Your task to perform on an android device: toggle improve location accuracy Image 0: 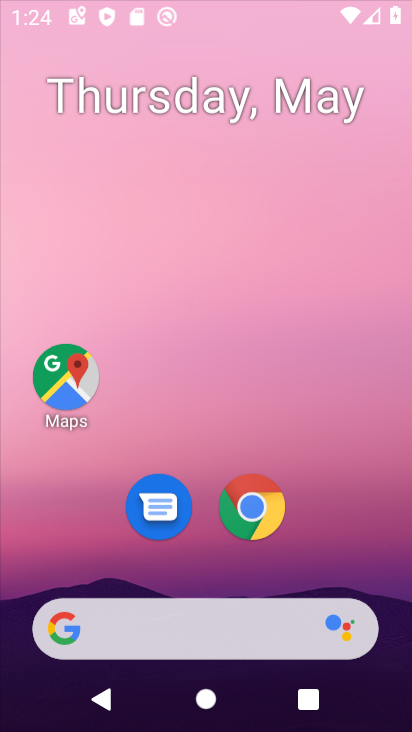
Step 0: press home button
Your task to perform on an android device: toggle improve location accuracy Image 1: 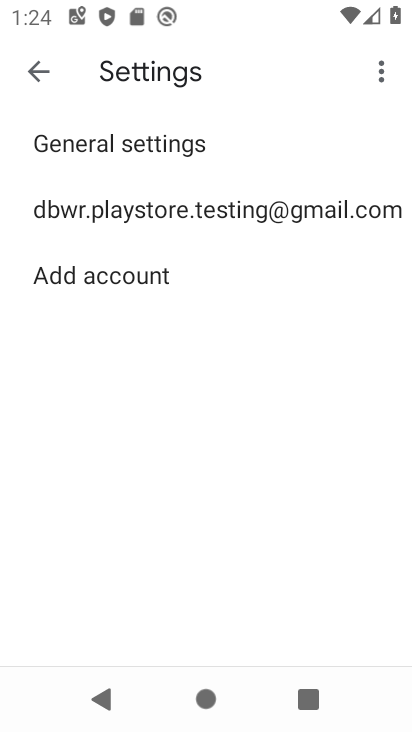
Step 1: drag from (257, 634) to (338, 39)
Your task to perform on an android device: toggle improve location accuracy Image 2: 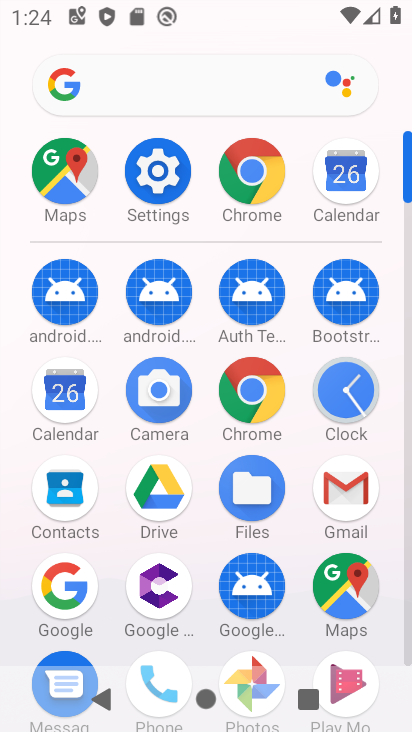
Step 2: click (169, 179)
Your task to perform on an android device: toggle improve location accuracy Image 3: 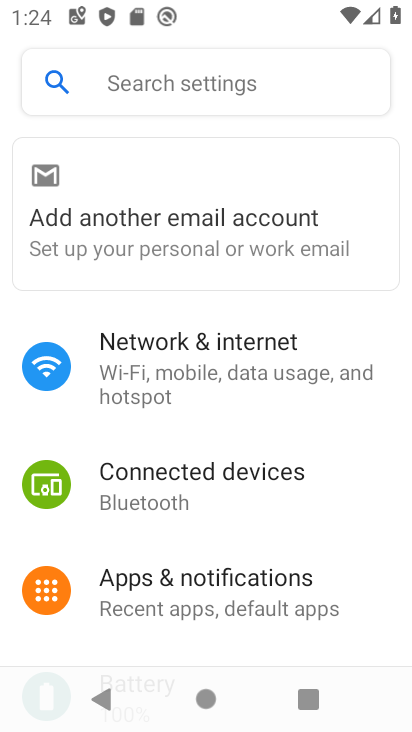
Step 3: drag from (202, 486) to (276, 154)
Your task to perform on an android device: toggle improve location accuracy Image 4: 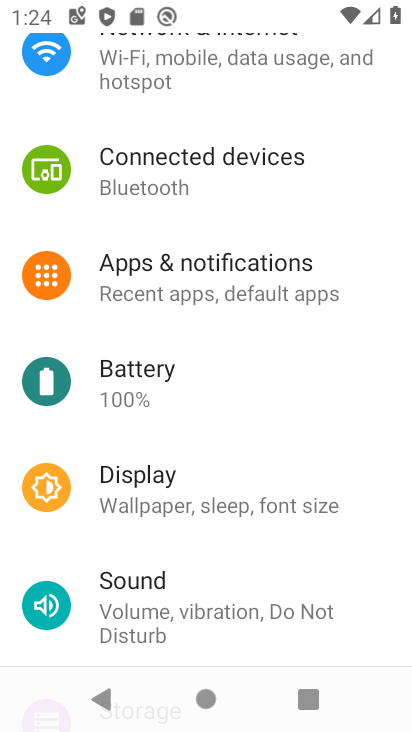
Step 4: drag from (213, 599) to (255, 192)
Your task to perform on an android device: toggle improve location accuracy Image 5: 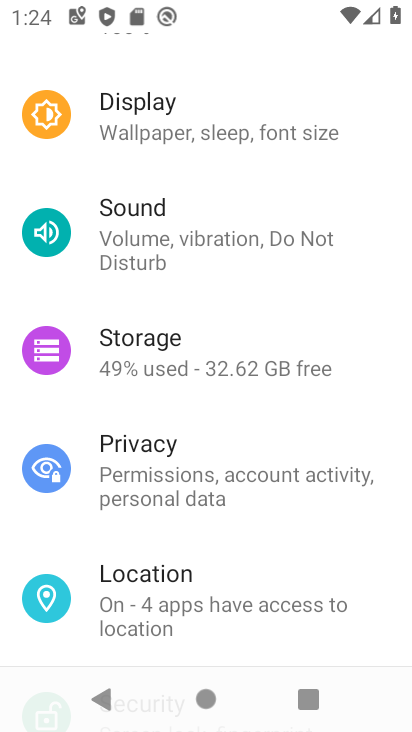
Step 5: click (173, 572)
Your task to perform on an android device: toggle improve location accuracy Image 6: 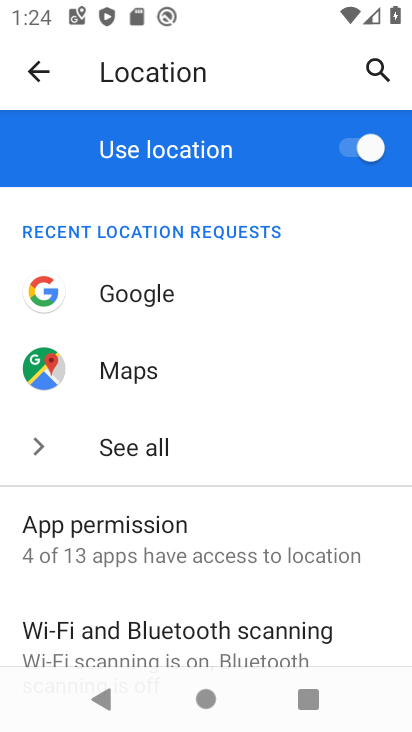
Step 6: drag from (228, 639) to (244, 224)
Your task to perform on an android device: toggle improve location accuracy Image 7: 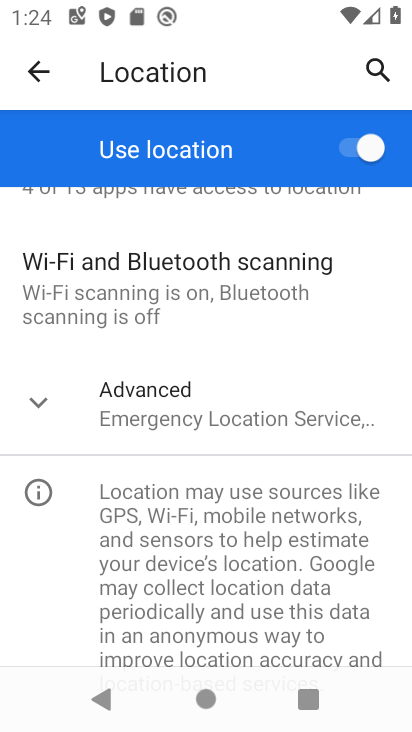
Step 7: click (173, 389)
Your task to perform on an android device: toggle improve location accuracy Image 8: 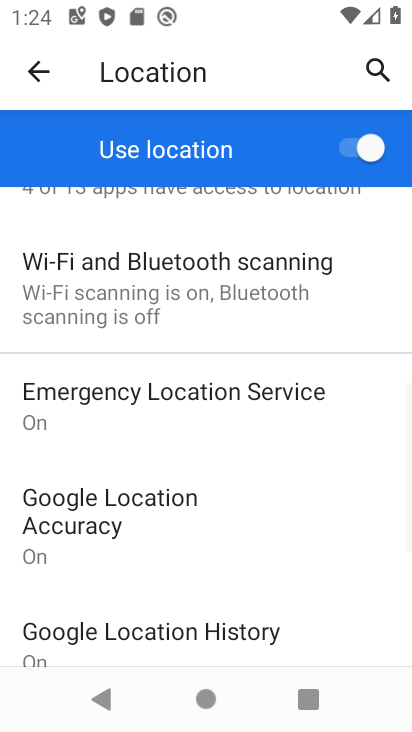
Step 8: click (149, 515)
Your task to perform on an android device: toggle improve location accuracy Image 9: 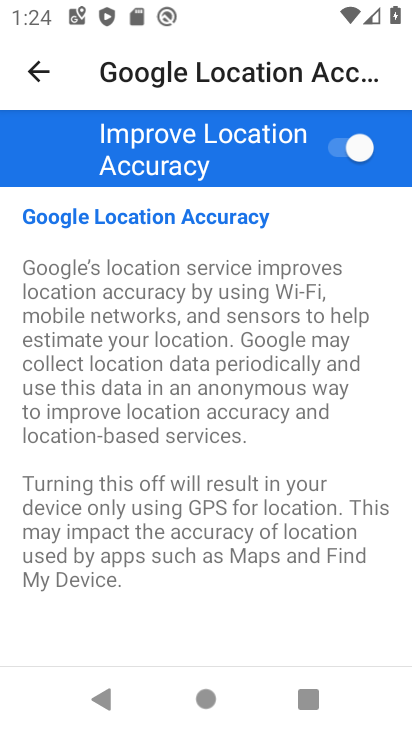
Step 9: click (347, 151)
Your task to perform on an android device: toggle improve location accuracy Image 10: 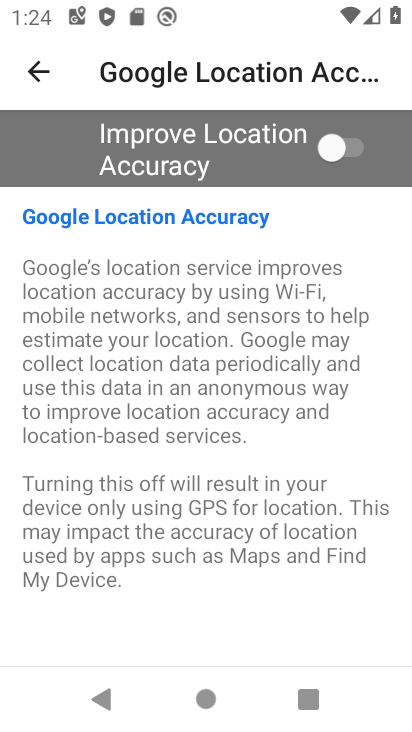
Step 10: task complete